Your task to perform on an android device: Clear all items from cart on ebay. Add "bose quietcomfort 35" to the cart on ebay Image 0: 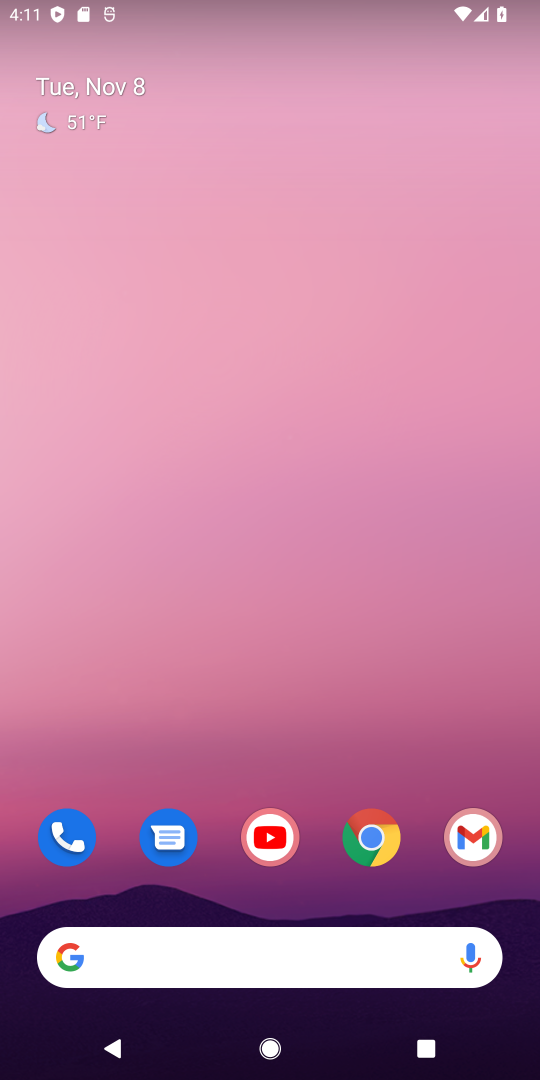
Step 0: click (375, 851)
Your task to perform on an android device: Clear all items from cart on ebay. Add "bose quietcomfort 35" to the cart on ebay Image 1: 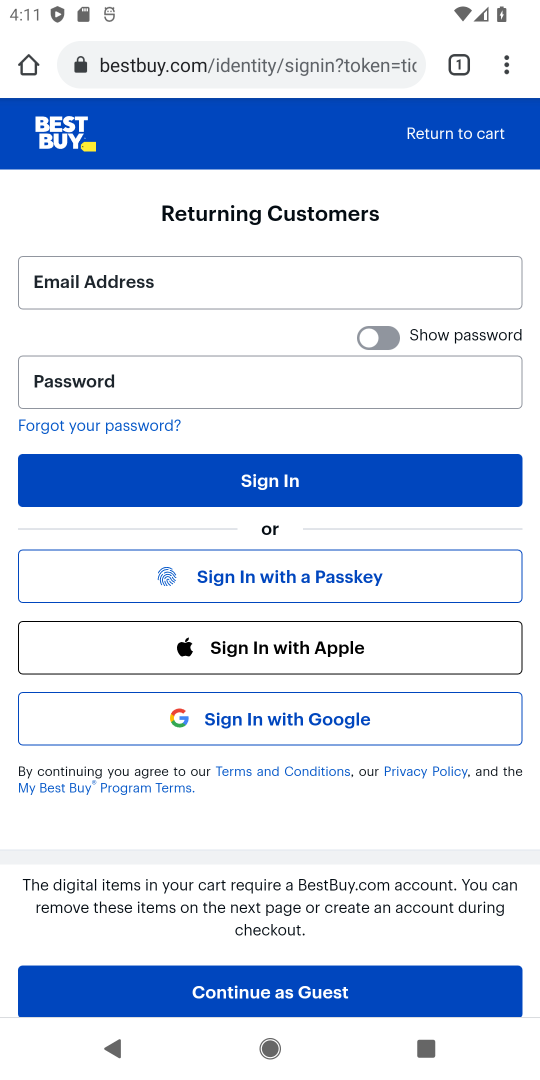
Step 1: click (196, 64)
Your task to perform on an android device: Clear all items from cart on ebay. Add "bose quietcomfort 35" to the cart on ebay Image 2: 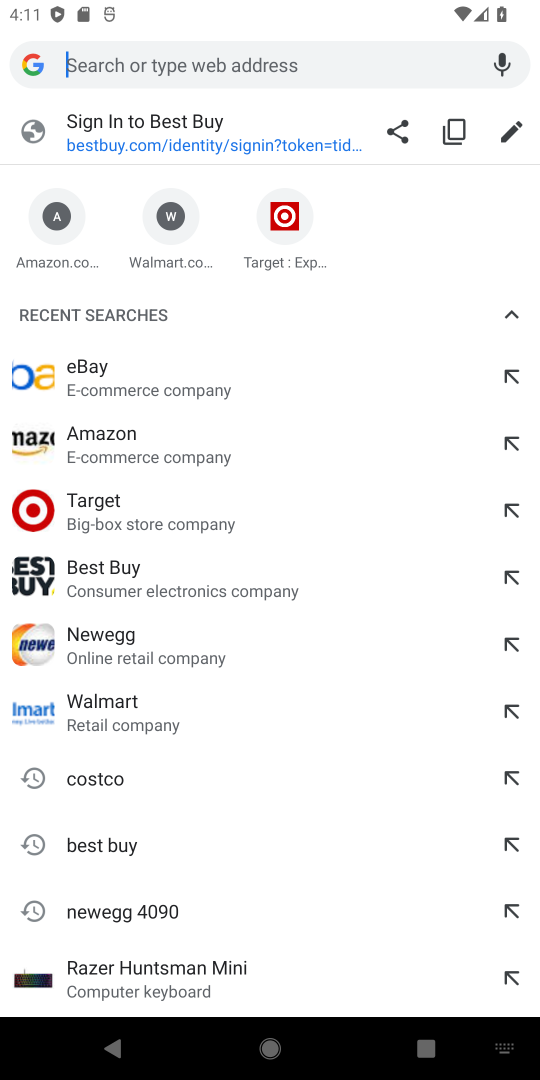
Step 2: type "ebay"
Your task to perform on an android device: Clear all items from cart on ebay. Add "bose quietcomfort 35" to the cart on ebay Image 3: 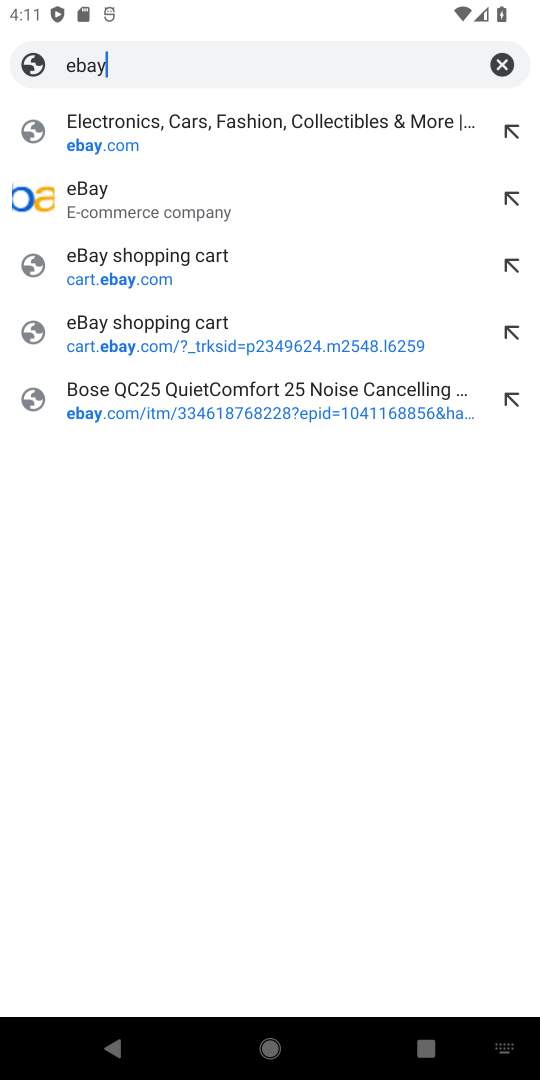
Step 3: click (106, 197)
Your task to perform on an android device: Clear all items from cart on ebay. Add "bose quietcomfort 35" to the cart on ebay Image 4: 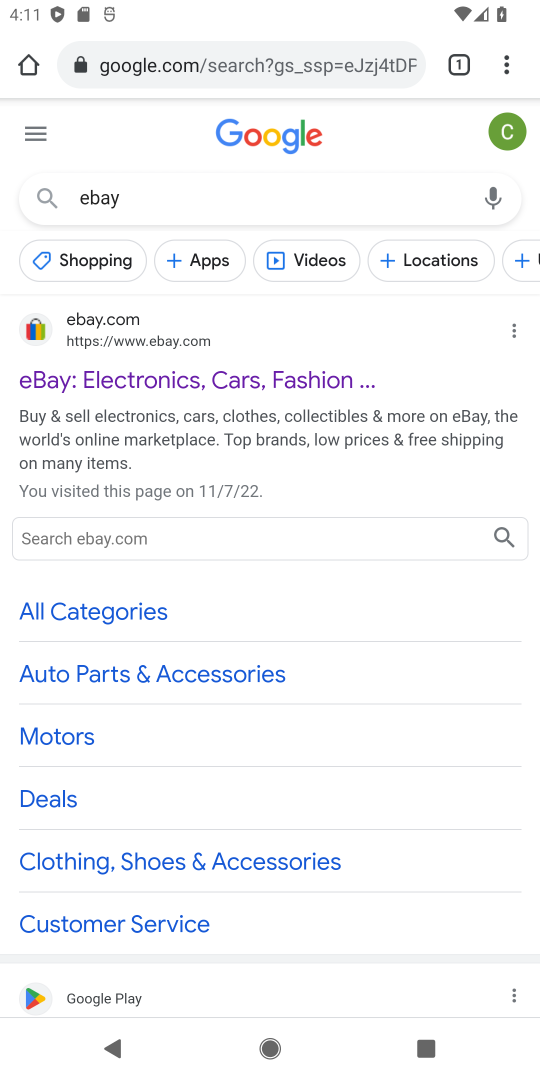
Step 4: click (163, 388)
Your task to perform on an android device: Clear all items from cart on ebay. Add "bose quietcomfort 35" to the cart on ebay Image 5: 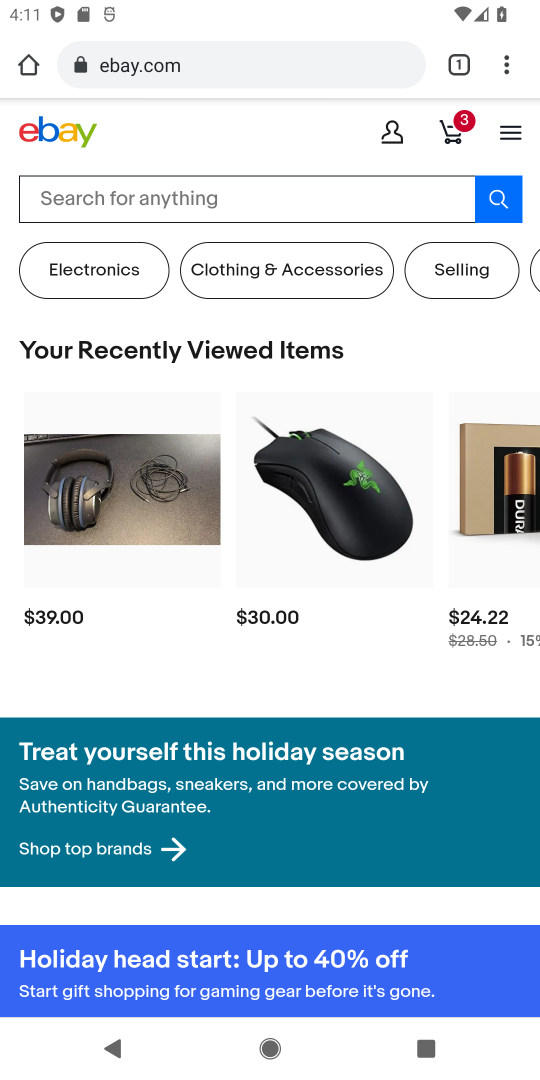
Step 5: click (301, 184)
Your task to perform on an android device: Clear all items from cart on ebay. Add "bose quietcomfort 35" to the cart on ebay Image 6: 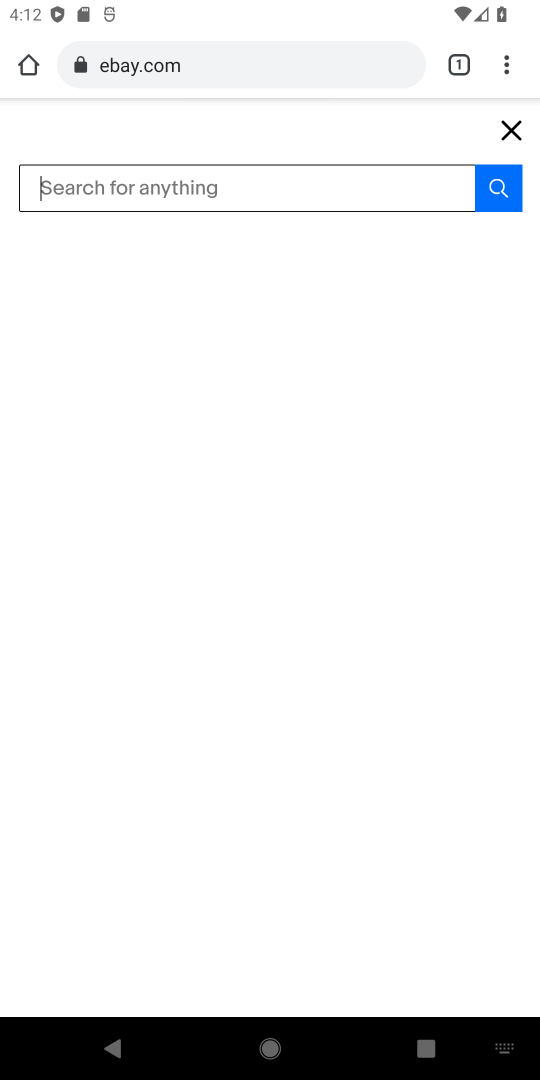
Step 6: type "bose eqietcomfort 35"
Your task to perform on an android device: Clear all items from cart on ebay. Add "bose quietcomfort 35" to the cart on ebay Image 7: 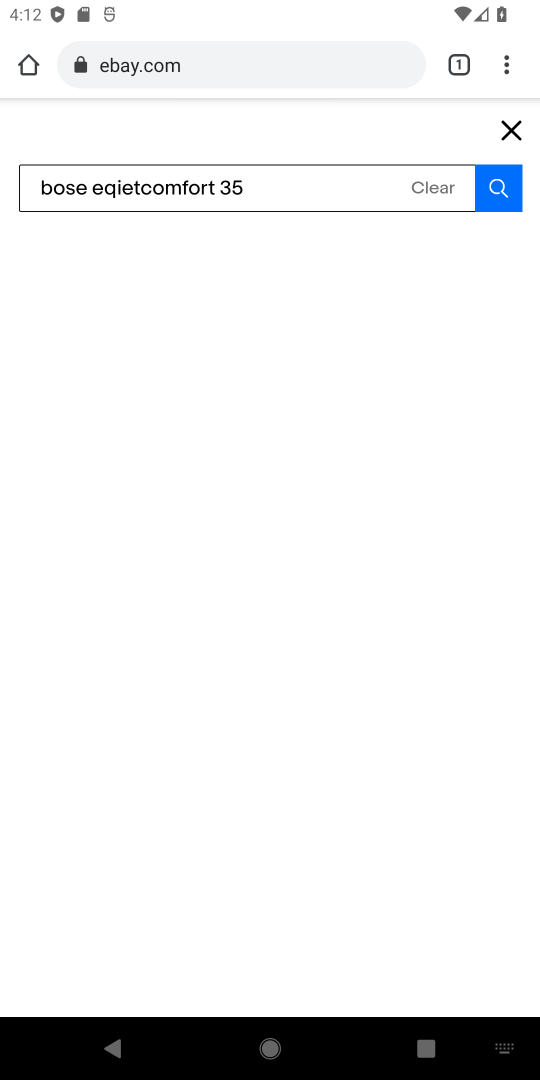
Step 7: click (254, 182)
Your task to perform on an android device: Clear all items from cart on ebay. Add "bose quietcomfort 35" to the cart on ebay Image 8: 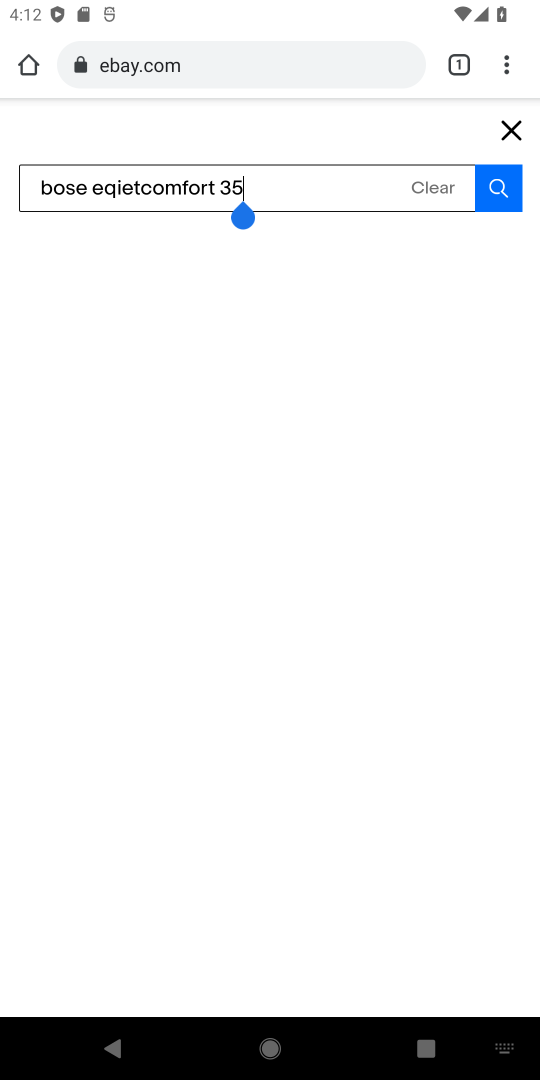
Step 8: click (418, 187)
Your task to perform on an android device: Clear all items from cart on ebay. Add "bose quietcomfort 35" to the cart on ebay Image 9: 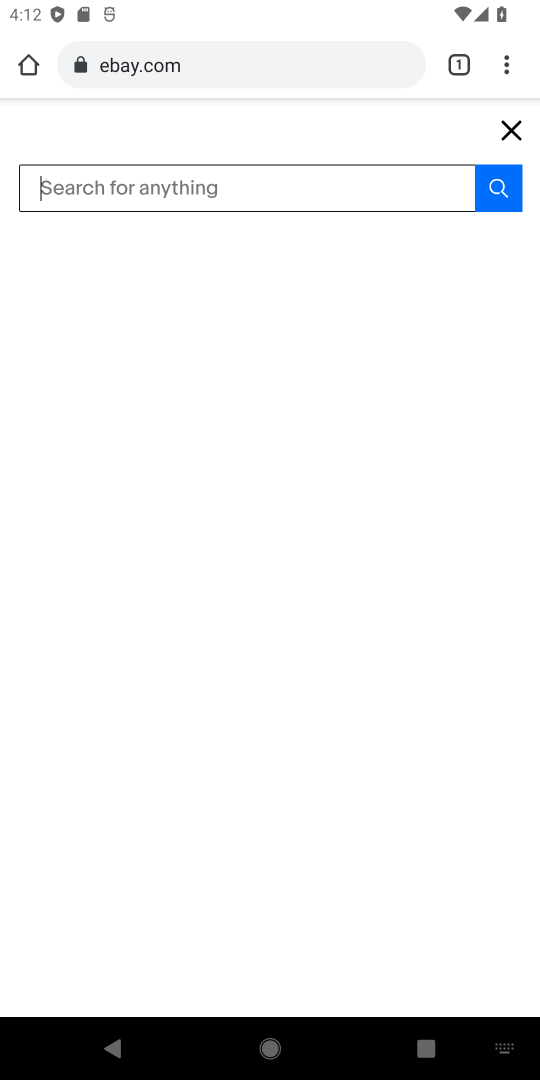
Step 9: type "bose quietcomfort"
Your task to perform on an android device: Clear all items from cart on ebay. Add "bose quietcomfort 35" to the cart on ebay Image 10: 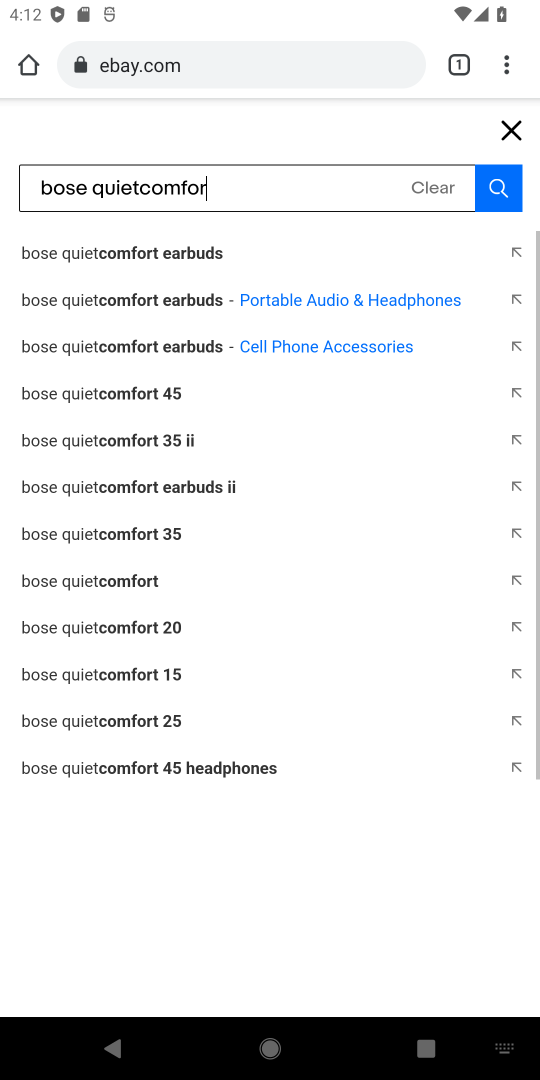
Step 10: type ""
Your task to perform on an android device: Clear all items from cart on ebay. Add "bose quietcomfort 35" to the cart on ebay Image 11: 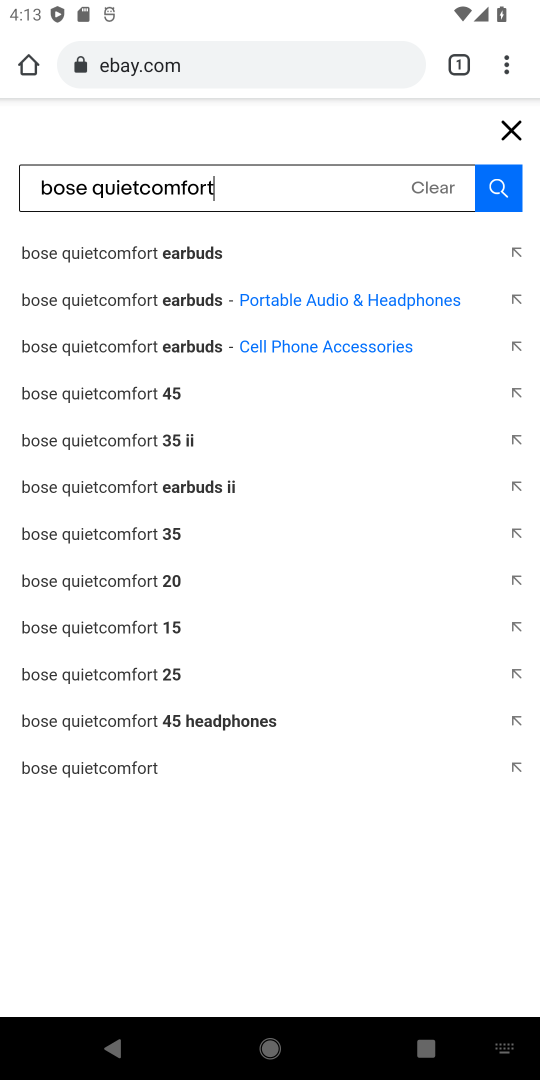
Step 11: click (85, 767)
Your task to perform on an android device: Clear all items from cart on ebay. Add "bose quietcomfort 35" to the cart on ebay Image 12: 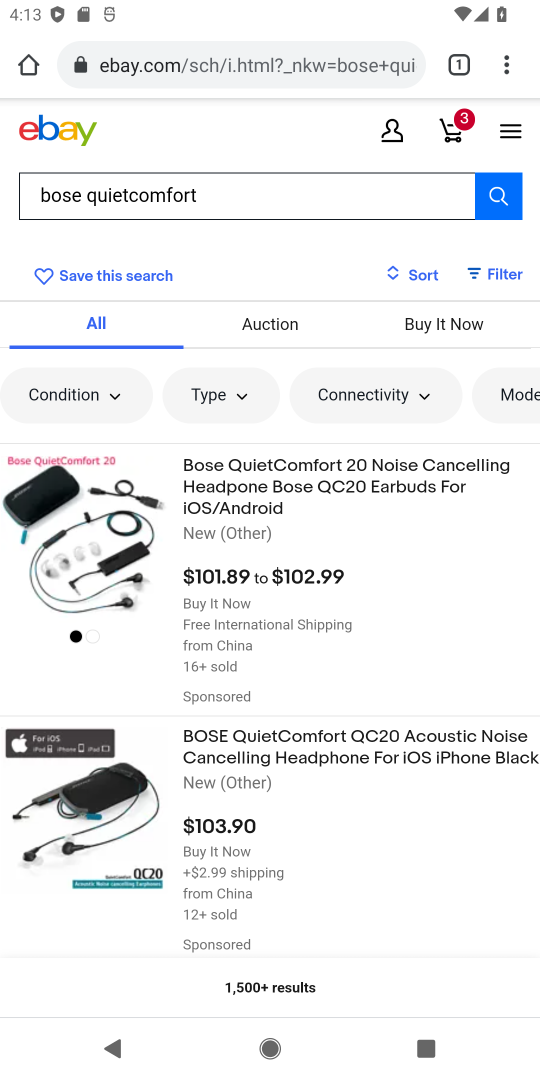
Step 12: click (206, 466)
Your task to perform on an android device: Clear all items from cart on ebay. Add "bose quietcomfort 35" to the cart on ebay Image 13: 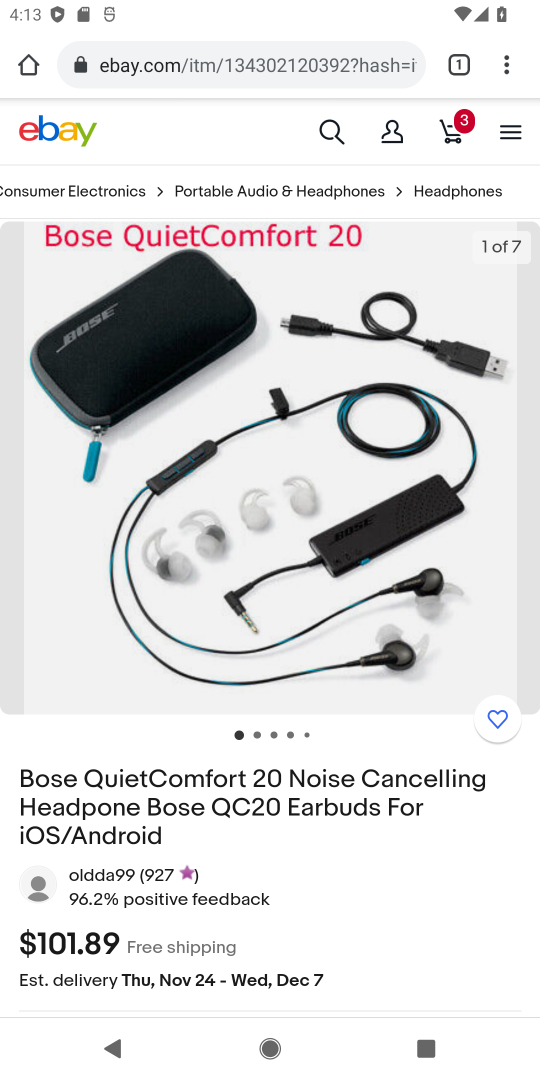
Step 13: drag from (101, 720) to (84, 190)
Your task to perform on an android device: Clear all items from cart on ebay. Add "bose quietcomfort 35" to the cart on ebay Image 14: 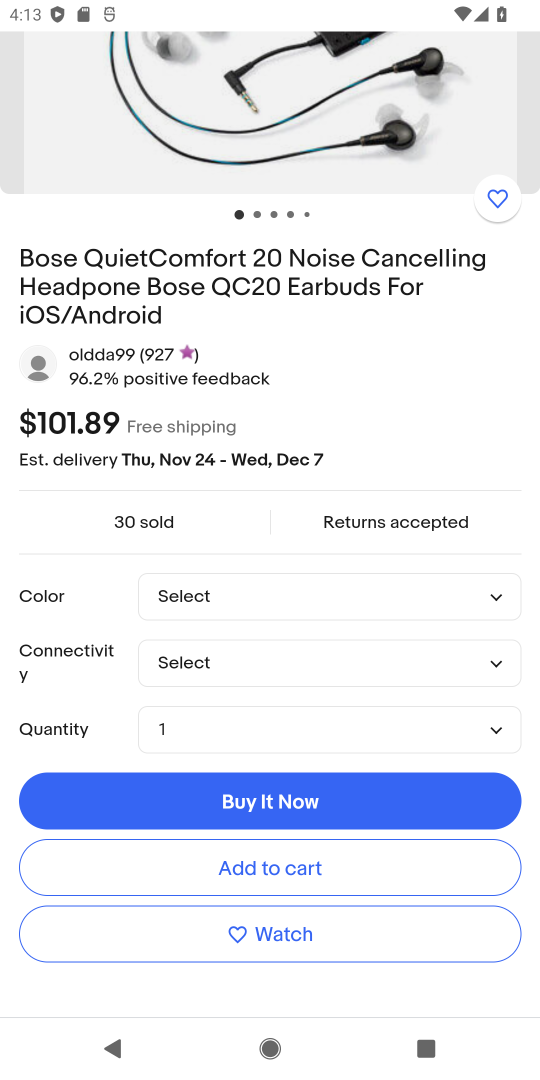
Step 14: click (329, 869)
Your task to perform on an android device: Clear all items from cart on ebay. Add "bose quietcomfort 35" to the cart on ebay Image 15: 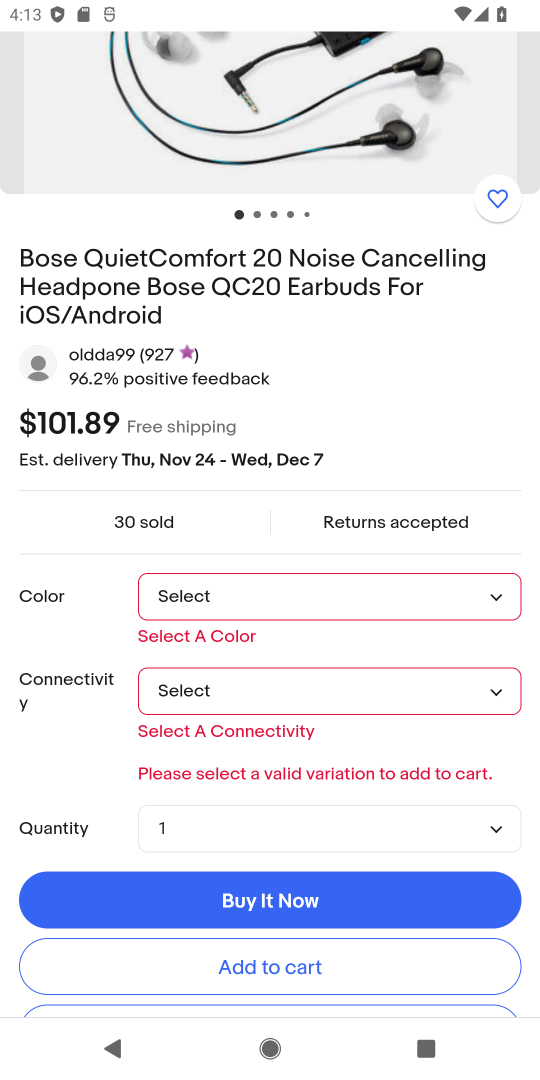
Step 15: click (288, 964)
Your task to perform on an android device: Clear all items from cart on ebay. Add "bose quietcomfort 35" to the cart on ebay Image 16: 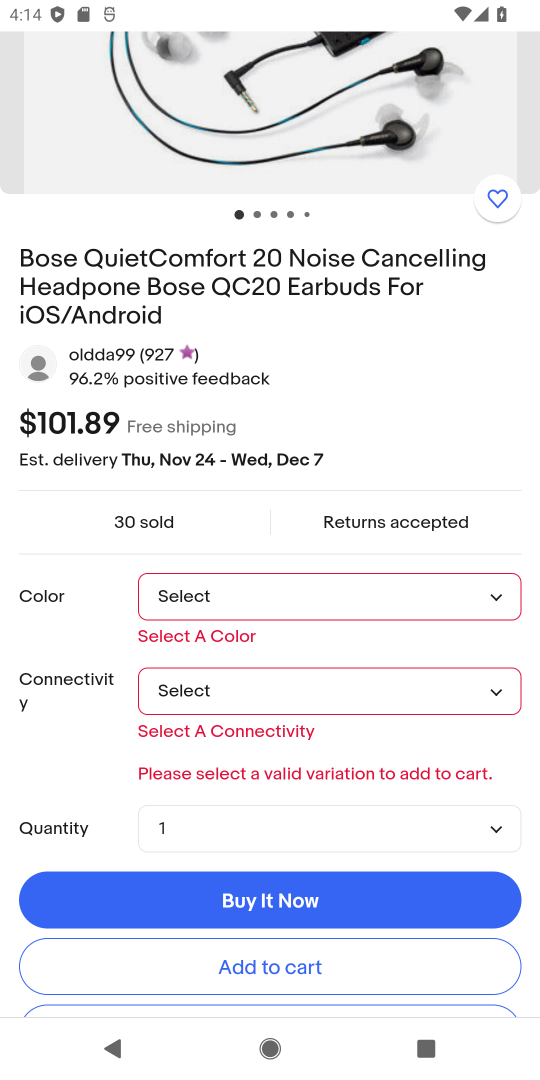
Step 16: press back button
Your task to perform on an android device: Clear all items from cart on ebay. Add "bose quietcomfort 35" to the cart on ebay Image 17: 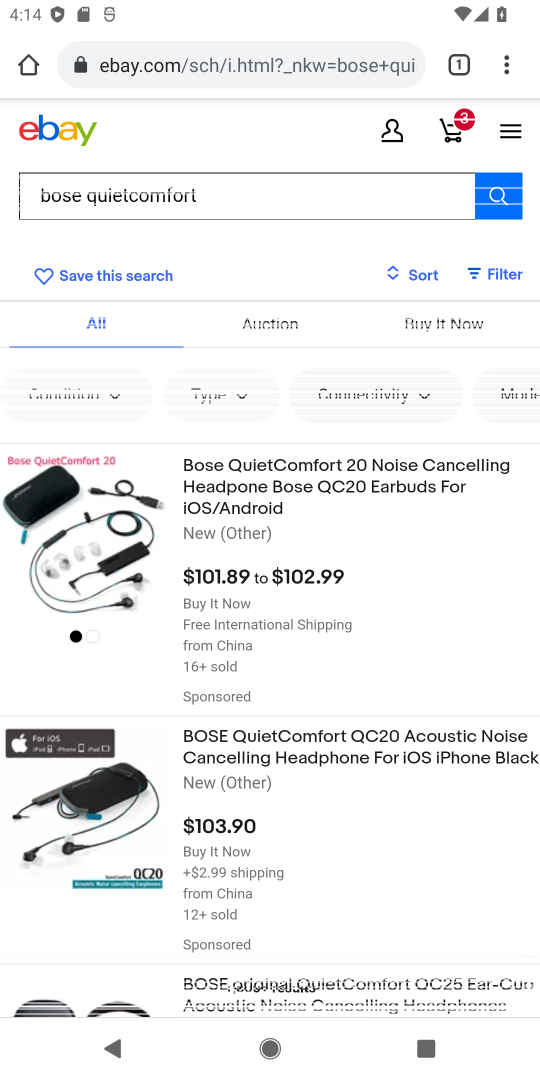
Step 17: drag from (258, 769) to (252, 322)
Your task to perform on an android device: Clear all items from cart on ebay. Add "bose quietcomfort 35" to the cart on ebay Image 18: 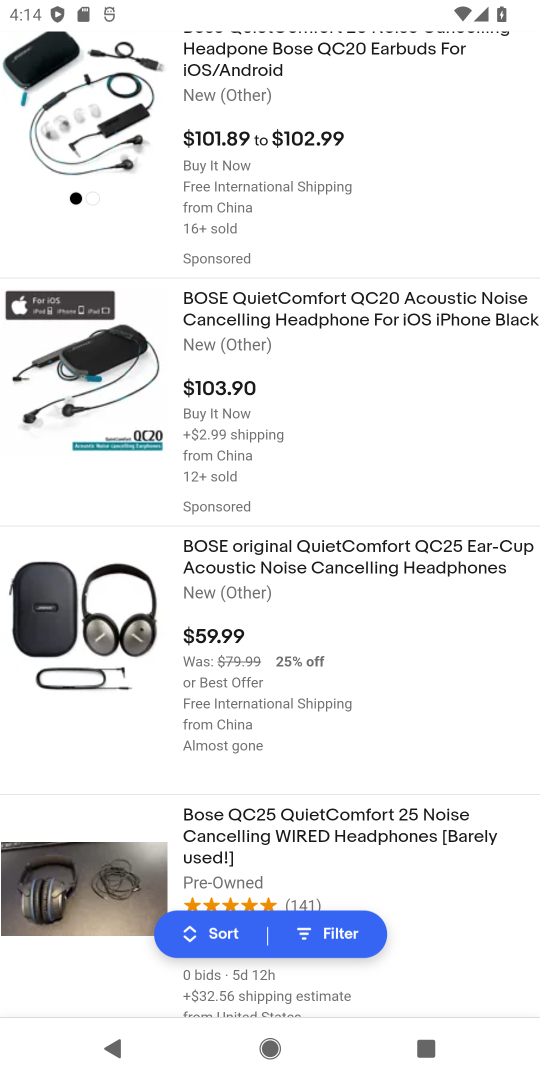
Step 18: click (274, 545)
Your task to perform on an android device: Clear all items from cart on ebay. Add "bose quietcomfort 35" to the cart on ebay Image 19: 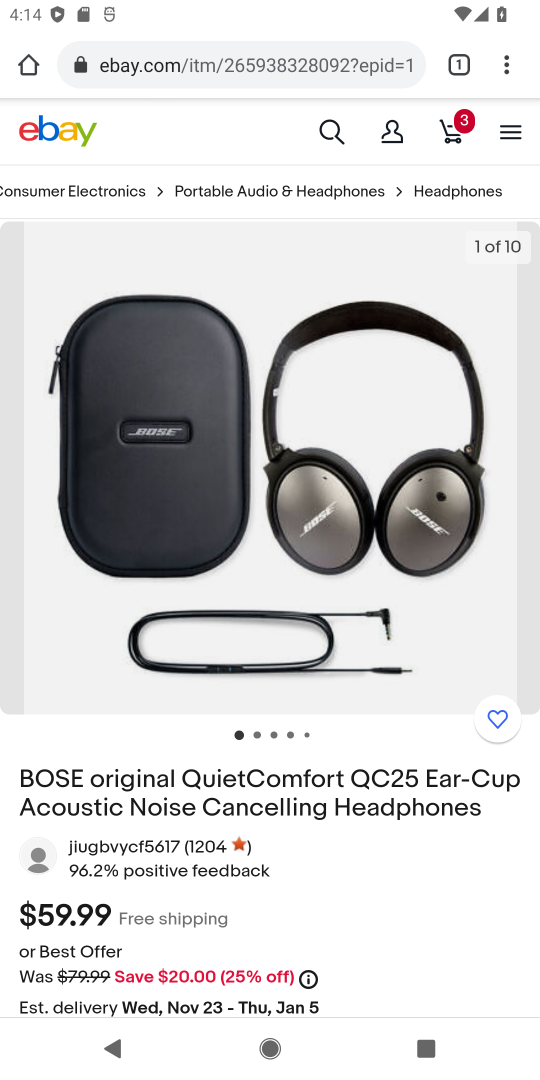
Step 19: drag from (158, 904) to (290, 390)
Your task to perform on an android device: Clear all items from cart on ebay. Add "bose quietcomfort 35" to the cart on ebay Image 20: 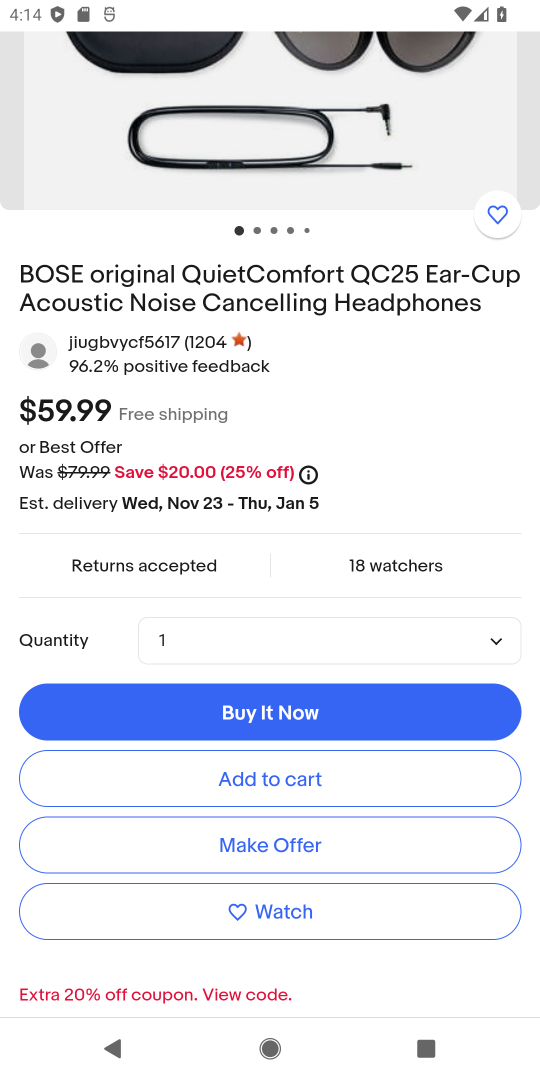
Step 20: click (220, 782)
Your task to perform on an android device: Clear all items from cart on ebay. Add "bose quietcomfort 35" to the cart on ebay Image 21: 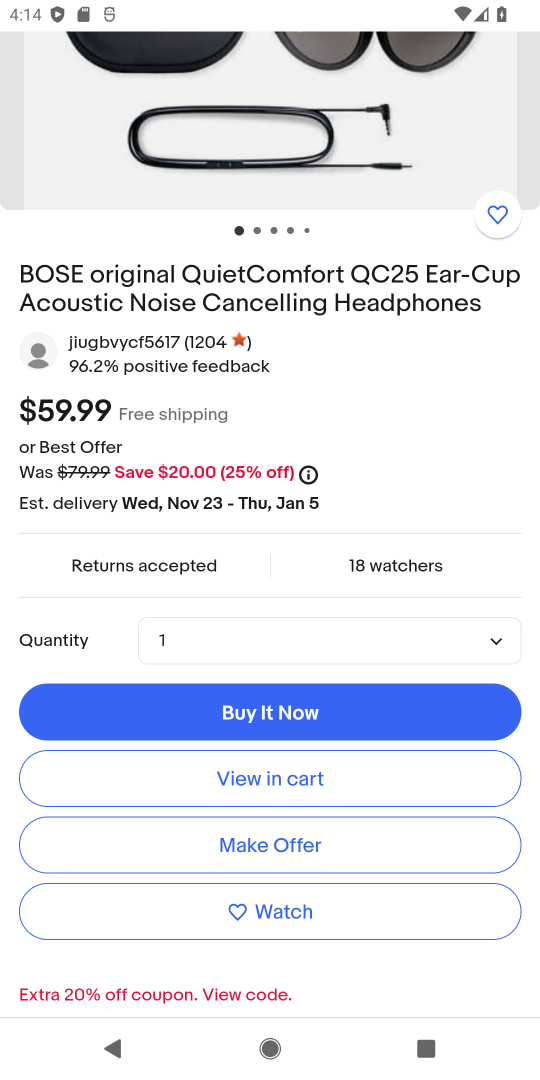
Step 21: click (246, 779)
Your task to perform on an android device: Clear all items from cart on ebay. Add "bose quietcomfort 35" to the cart on ebay Image 22: 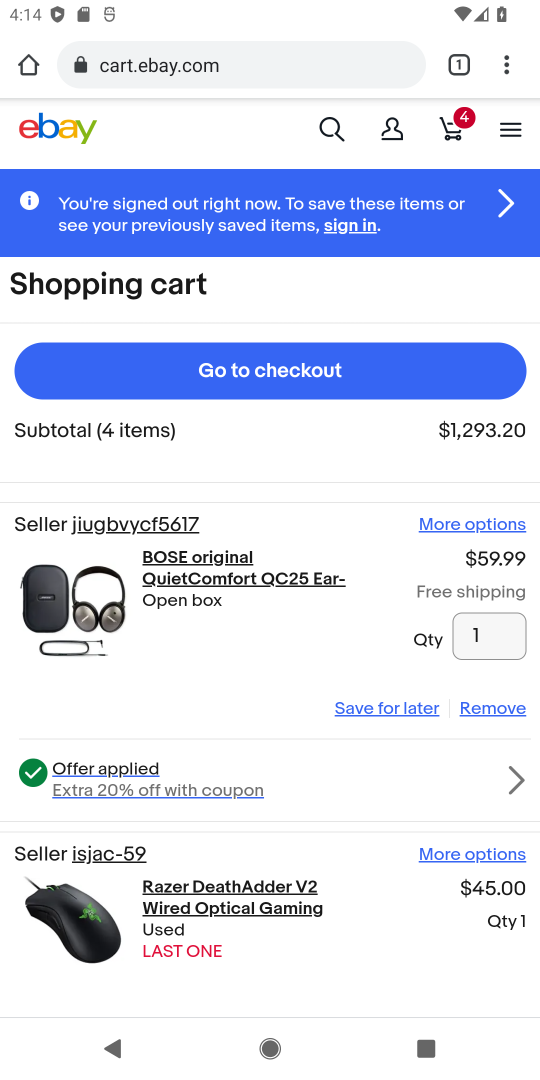
Step 22: drag from (465, 436) to (455, 196)
Your task to perform on an android device: Clear all items from cart on ebay. Add "bose quietcomfort 35" to the cart on ebay Image 23: 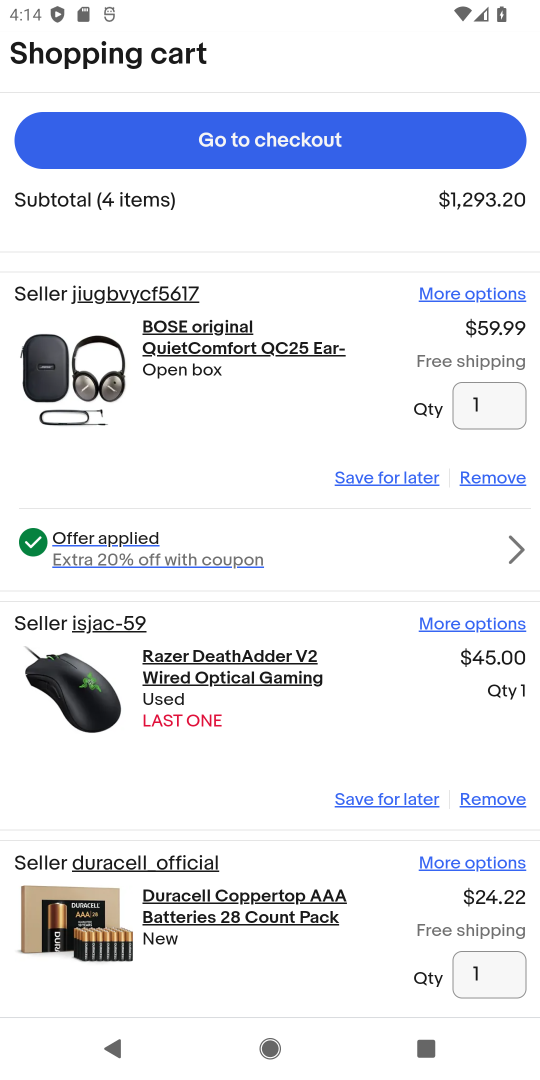
Step 23: drag from (385, 255) to (354, 767)
Your task to perform on an android device: Clear all items from cart on ebay. Add "bose quietcomfort 35" to the cart on ebay Image 24: 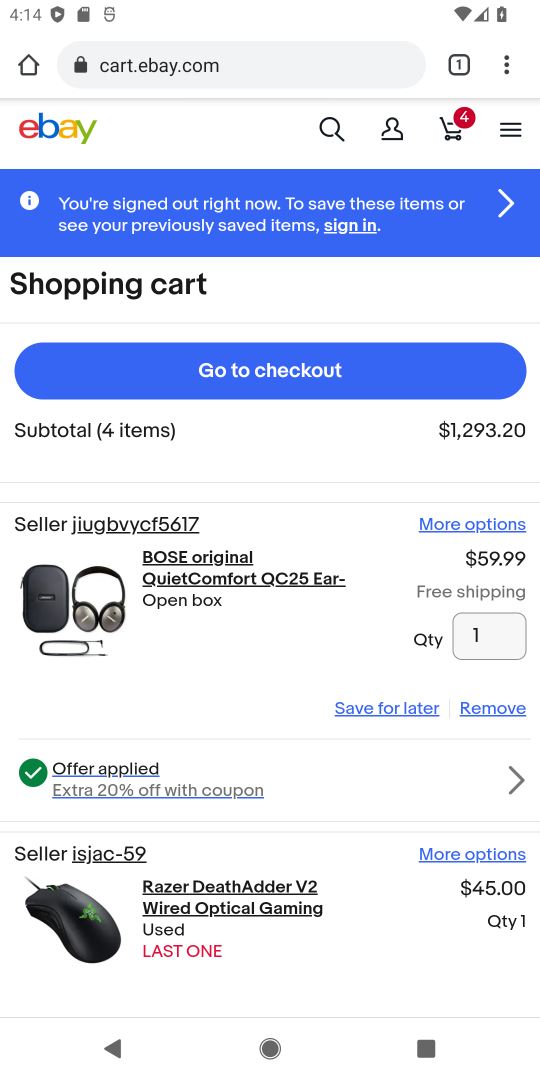
Step 24: click (452, 127)
Your task to perform on an android device: Clear all items from cart on ebay. Add "bose quietcomfort 35" to the cart on ebay Image 25: 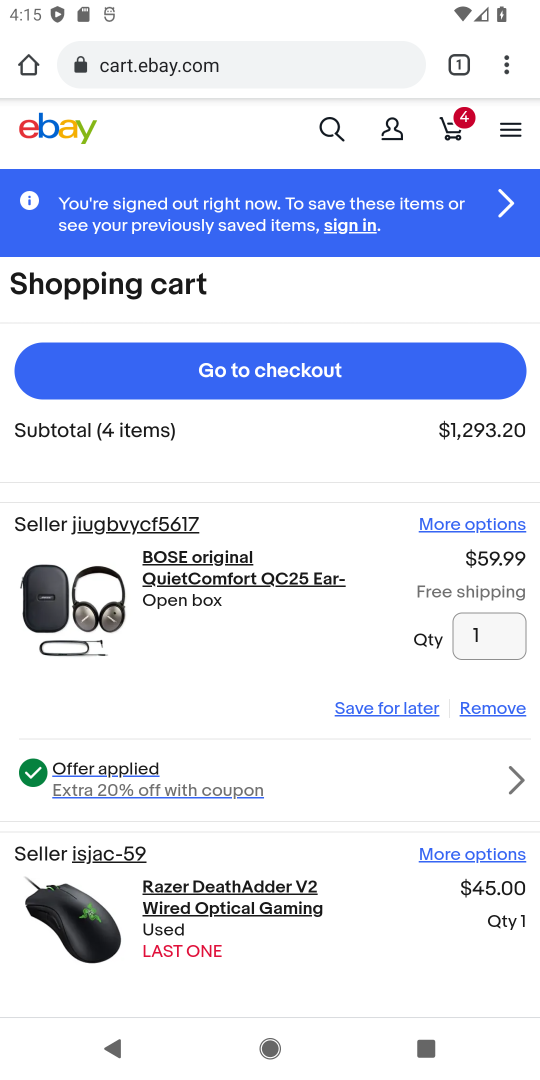
Step 25: click (174, 881)
Your task to perform on an android device: Clear all items from cart on ebay. Add "bose quietcomfort 35" to the cart on ebay Image 26: 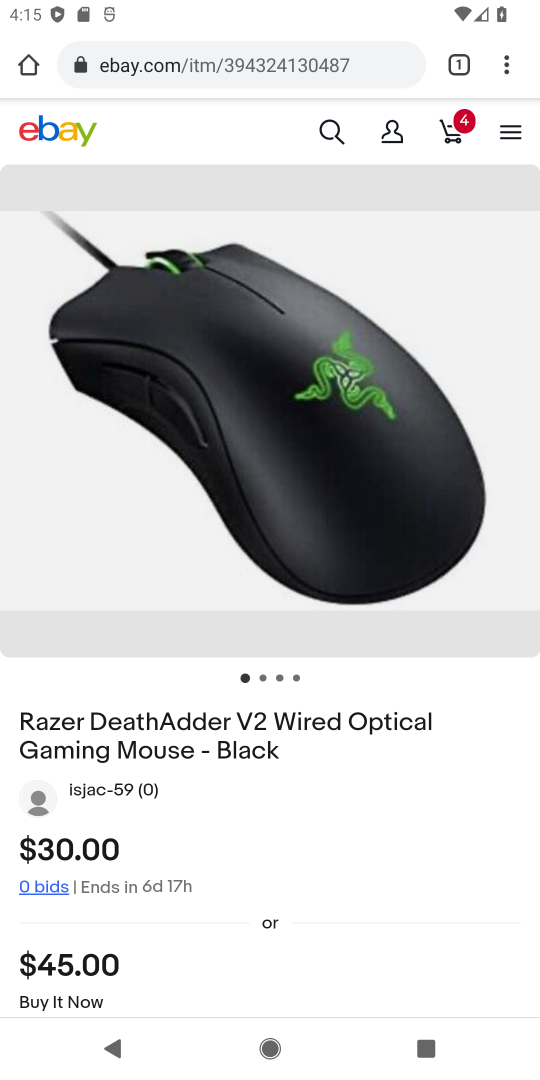
Step 26: press back button
Your task to perform on an android device: Clear all items from cart on ebay. Add "bose quietcomfort 35" to the cart on ebay Image 27: 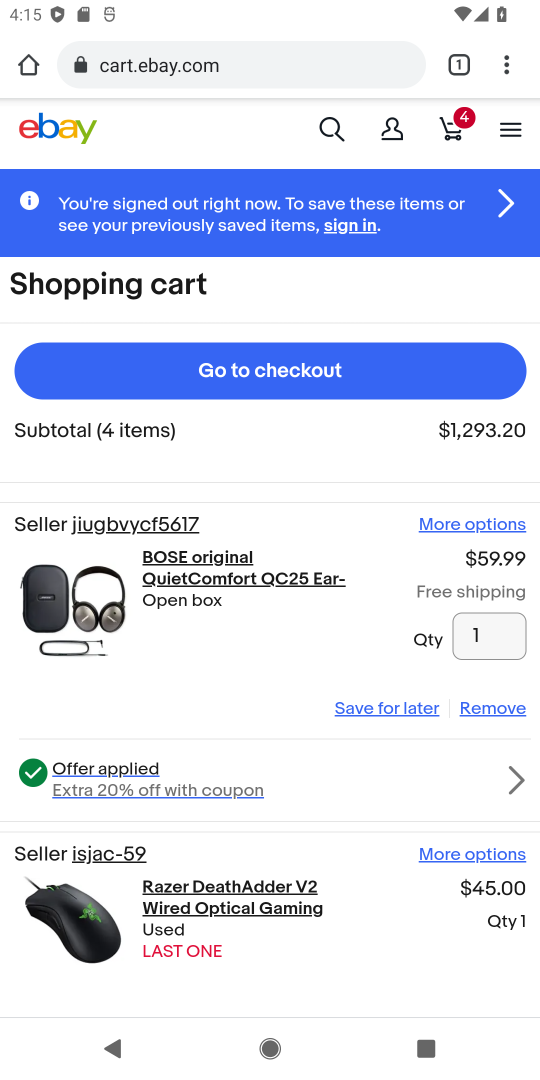
Step 27: click (154, 551)
Your task to perform on an android device: Clear all items from cart on ebay. Add "bose quietcomfort 35" to the cart on ebay Image 28: 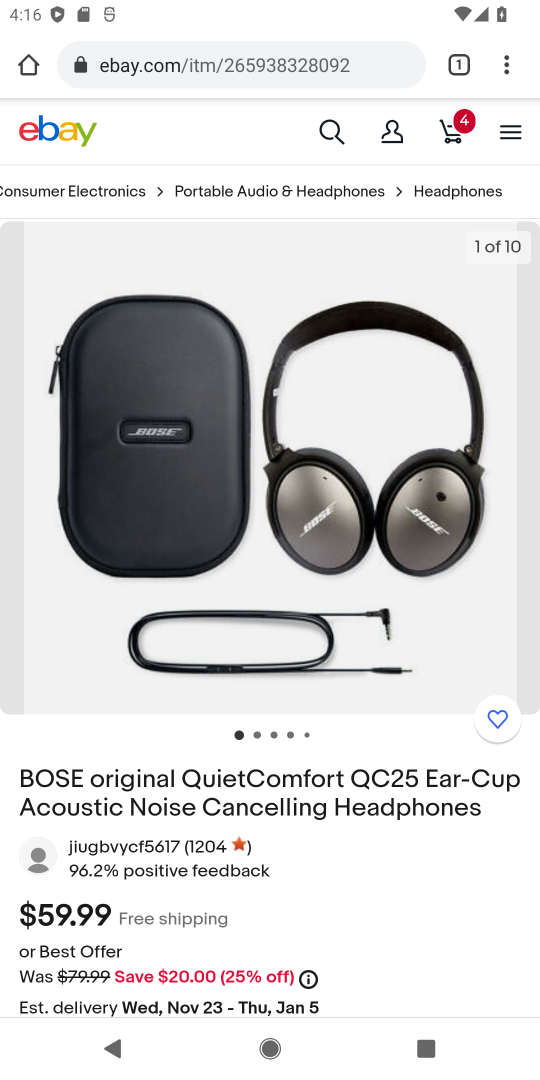
Step 28: drag from (299, 885) to (240, 256)
Your task to perform on an android device: Clear all items from cart on ebay. Add "bose quietcomfort 35" to the cart on ebay Image 29: 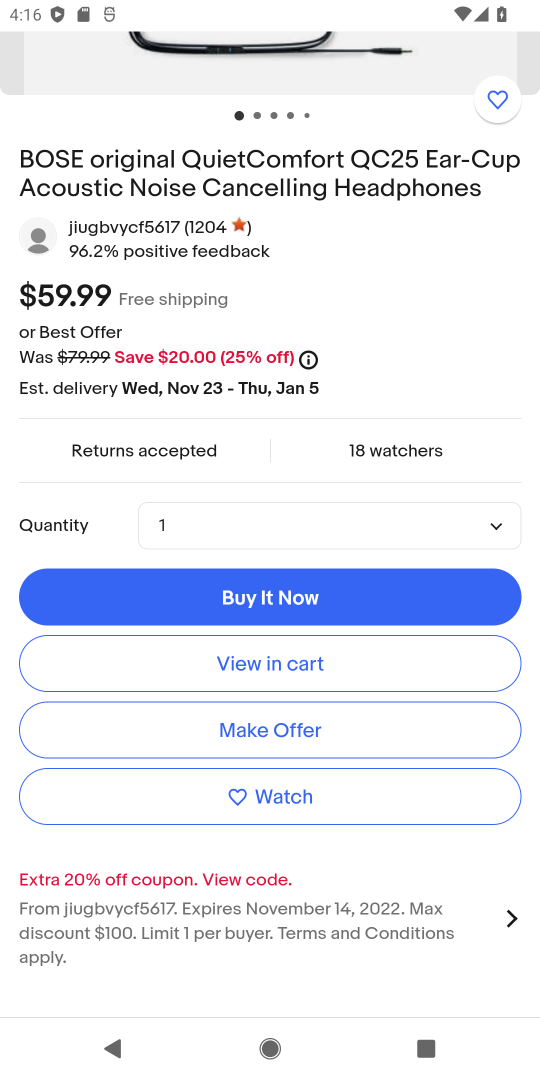
Step 29: click (256, 663)
Your task to perform on an android device: Clear all items from cart on ebay. Add "bose quietcomfort 35" to the cart on ebay Image 30: 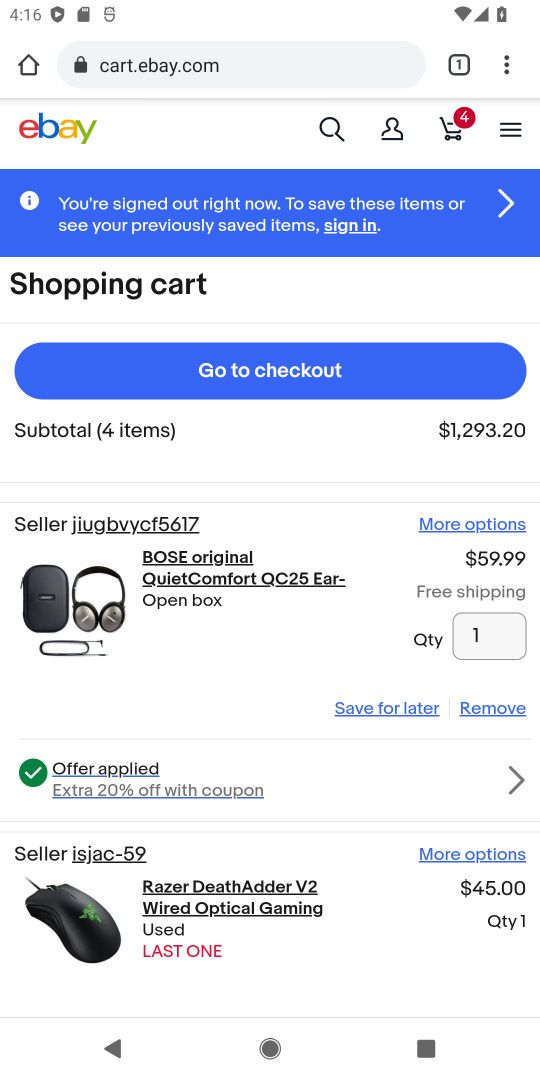
Step 30: drag from (245, 607) to (239, 407)
Your task to perform on an android device: Clear all items from cart on ebay. Add "bose quietcomfort 35" to the cart on ebay Image 31: 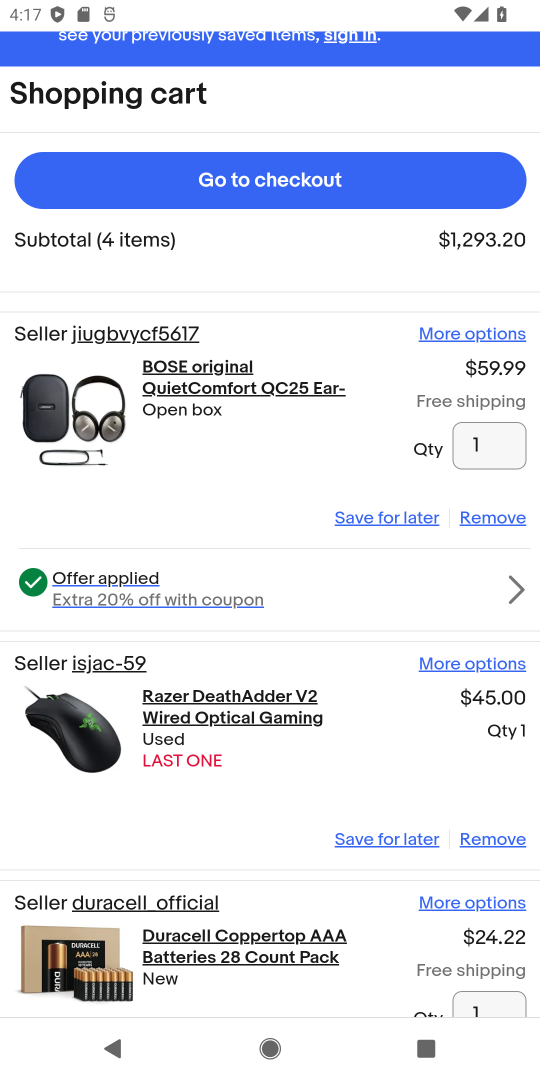
Step 31: drag from (257, 261) to (0, 438)
Your task to perform on an android device: Clear all items from cart on ebay. Add "bose quietcomfort 35" to the cart on ebay Image 32: 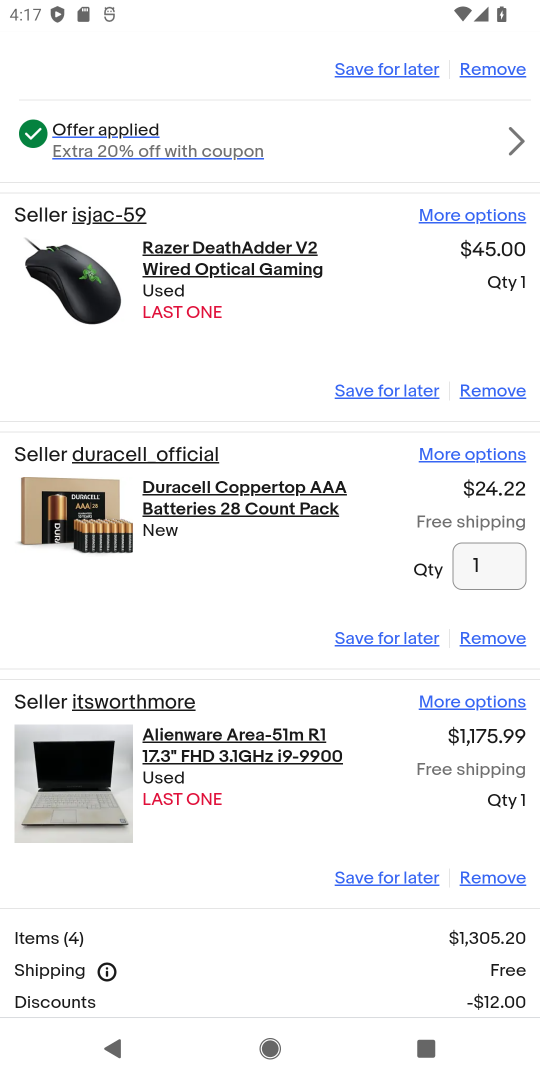
Step 32: click (469, 119)
Your task to perform on an android device: Clear all items from cart on ebay. Add "bose quietcomfort 35" to the cart on ebay Image 33: 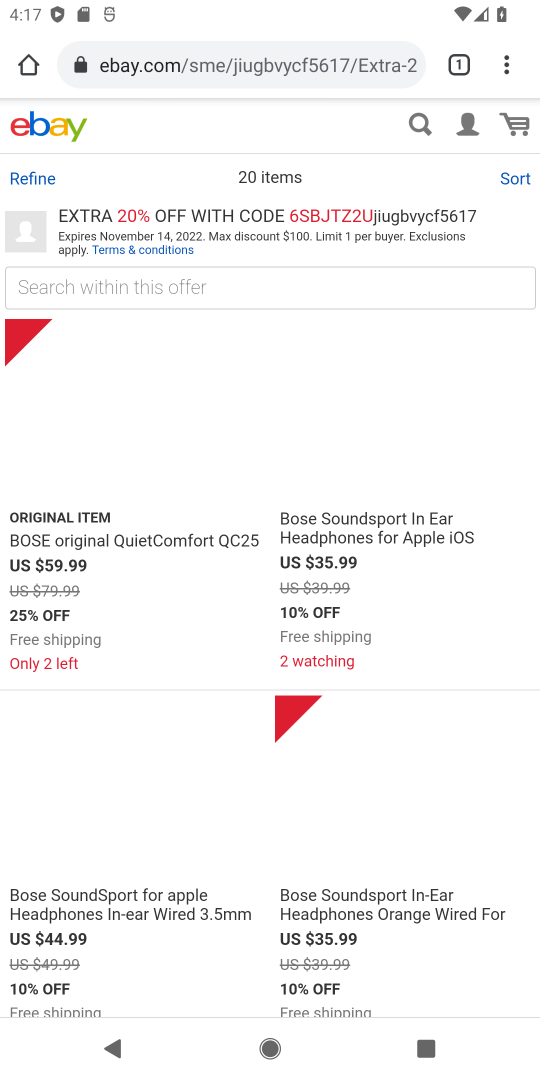
Step 33: drag from (368, 184) to (381, 895)
Your task to perform on an android device: Clear all items from cart on ebay. Add "bose quietcomfort 35" to the cart on ebay Image 34: 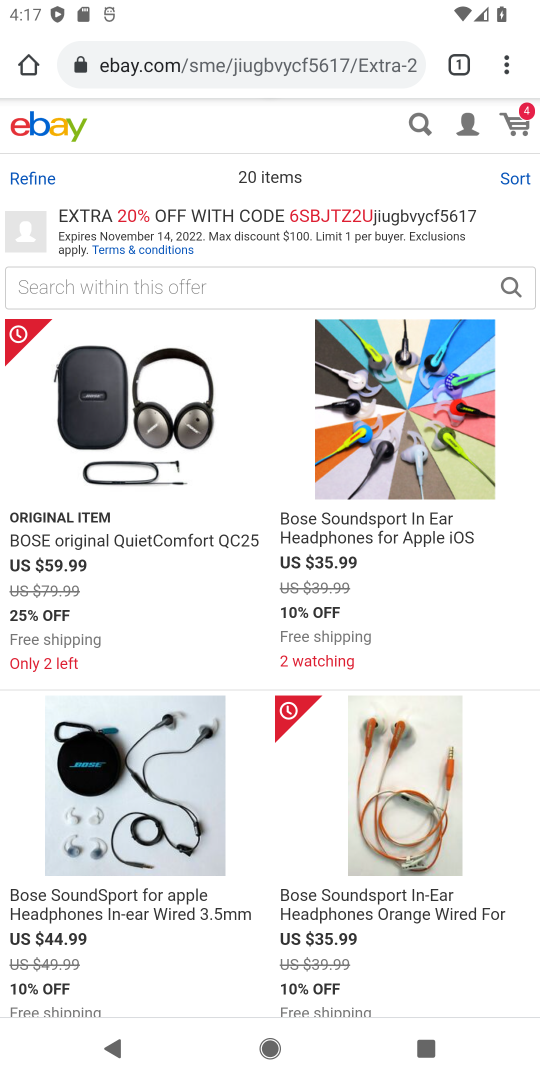
Step 34: click (519, 122)
Your task to perform on an android device: Clear all items from cart on ebay. Add "bose quietcomfort 35" to the cart on ebay Image 35: 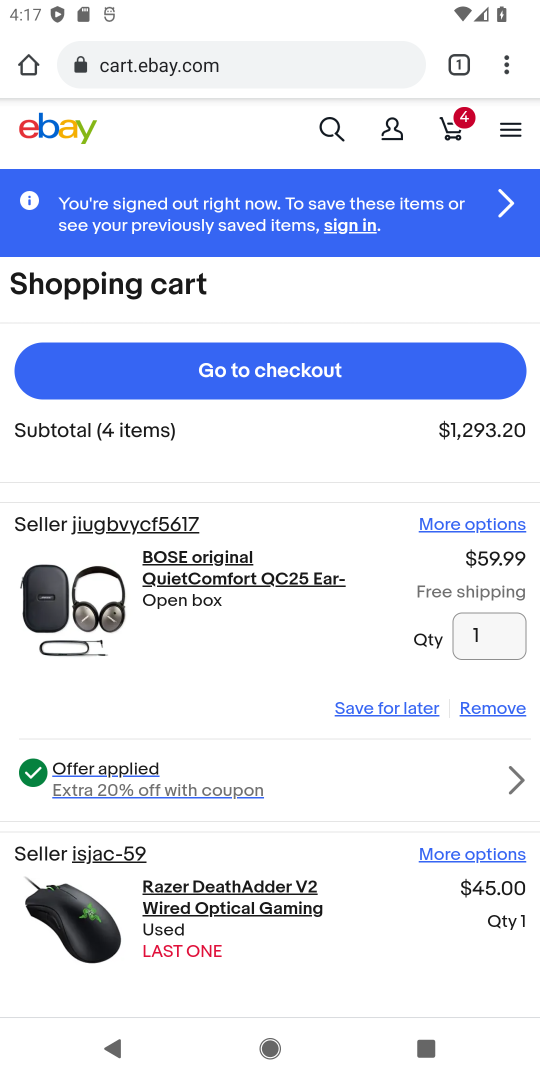
Step 35: drag from (262, 663) to (276, 231)
Your task to perform on an android device: Clear all items from cart on ebay. Add "bose quietcomfort 35" to the cart on ebay Image 36: 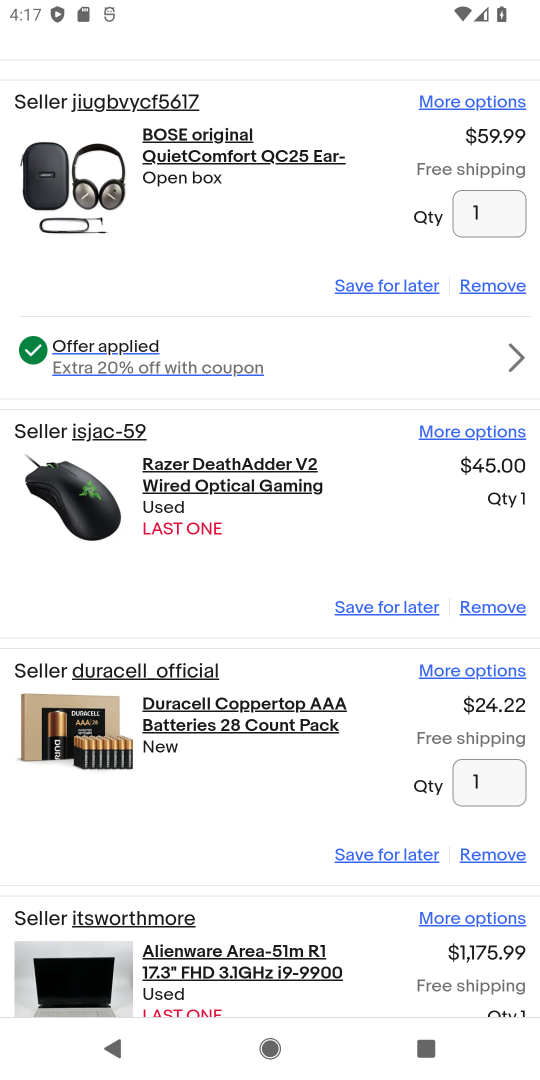
Step 36: click (487, 607)
Your task to perform on an android device: Clear all items from cart on ebay. Add "bose quietcomfort 35" to the cart on ebay Image 37: 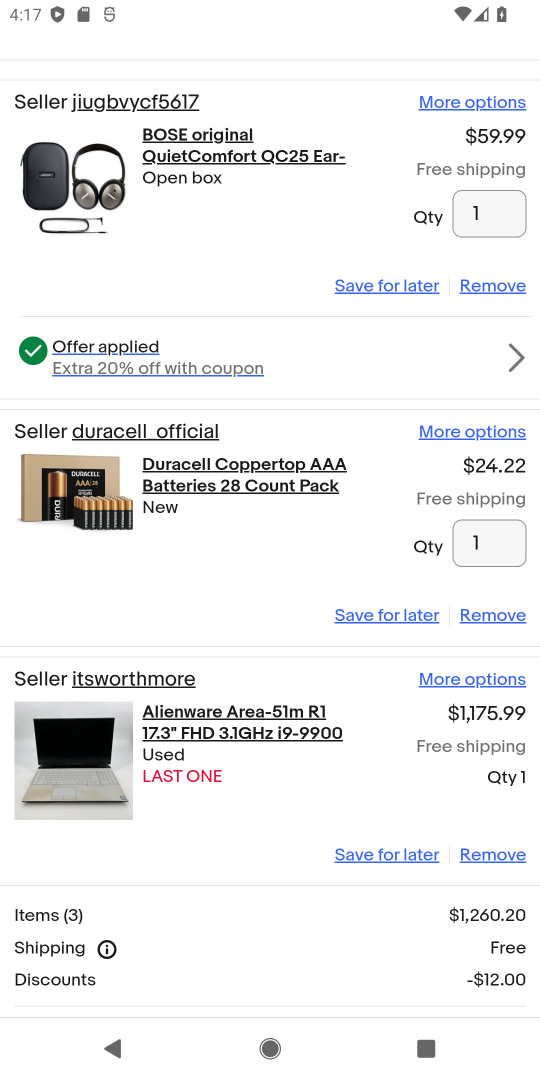
Step 37: click (484, 856)
Your task to perform on an android device: Clear all items from cart on ebay. Add "bose quietcomfort 35" to the cart on ebay Image 38: 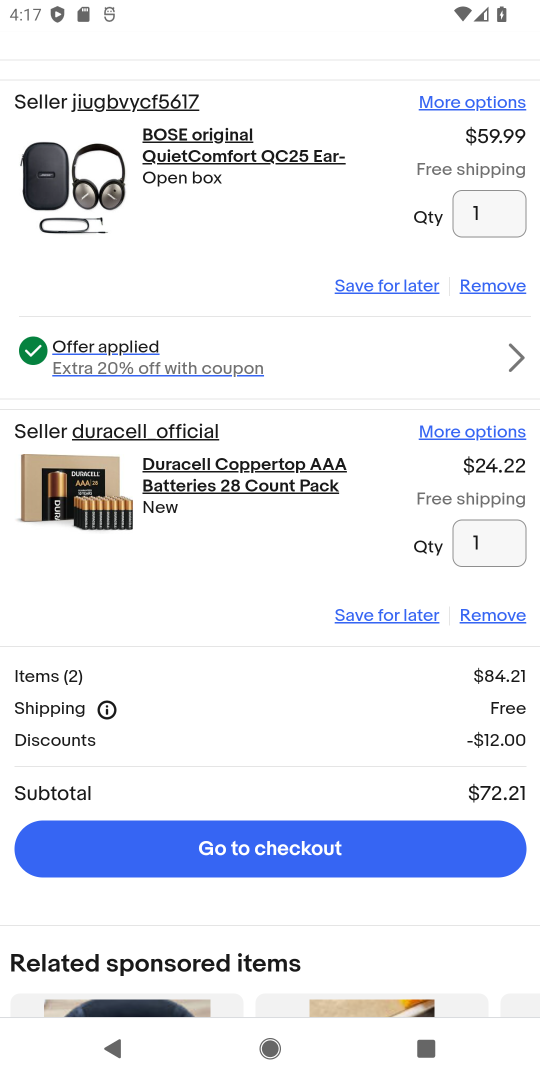
Step 38: click (508, 614)
Your task to perform on an android device: Clear all items from cart on ebay. Add "bose quietcomfort 35" to the cart on ebay Image 39: 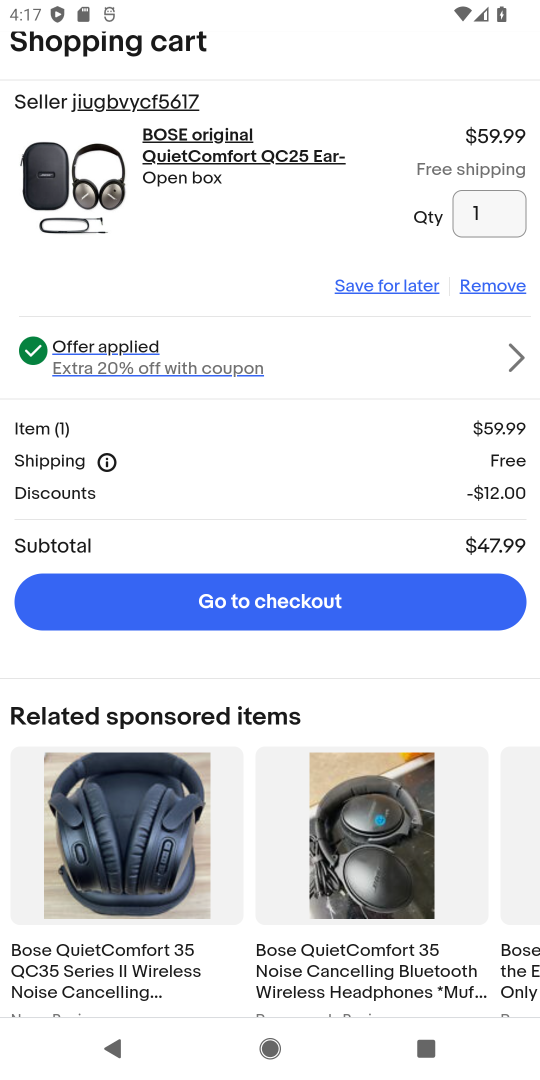
Step 39: task complete